Your task to perform on an android device: Open notification settings Image 0: 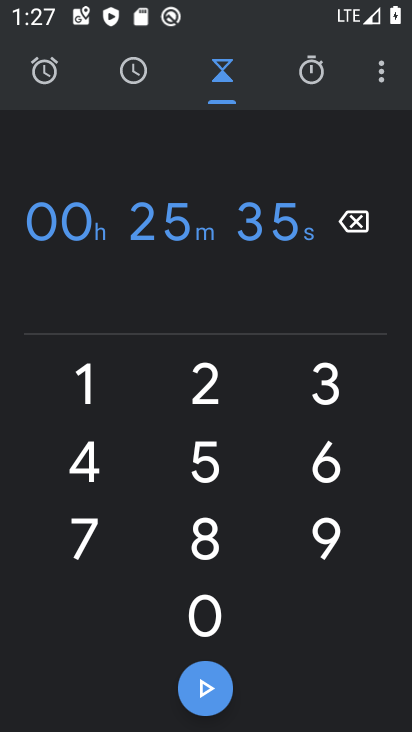
Step 0: press back button
Your task to perform on an android device: Open notification settings Image 1: 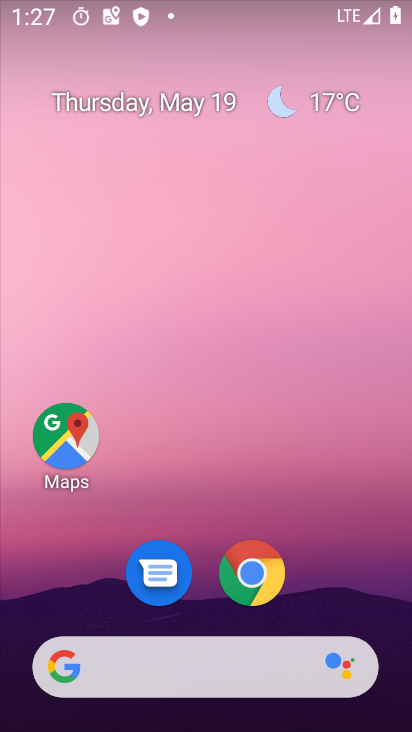
Step 1: drag from (210, 619) to (318, 134)
Your task to perform on an android device: Open notification settings Image 2: 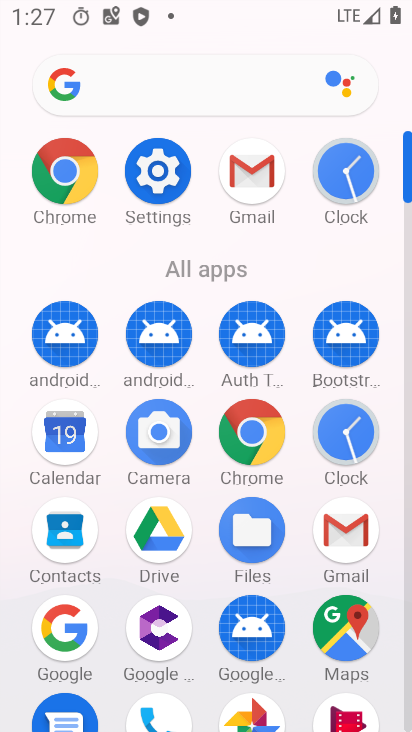
Step 2: click (159, 167)
Your task to perform on an android device: Open notification settings Image 3: 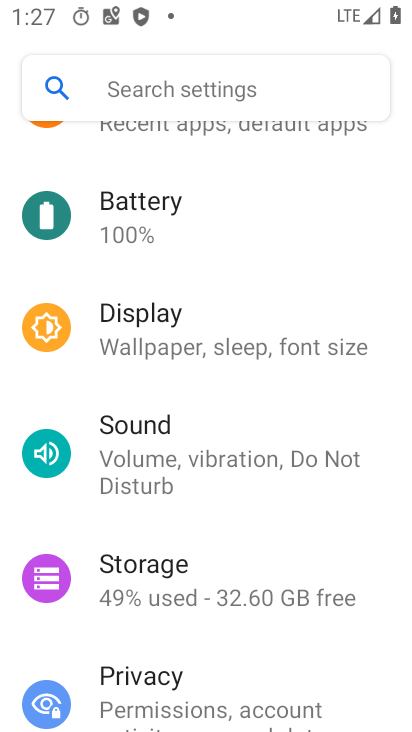
Step 3: drag from (249, 220) to (190, 687)
Your task to perform on an android device: Open notification settings Image 4: 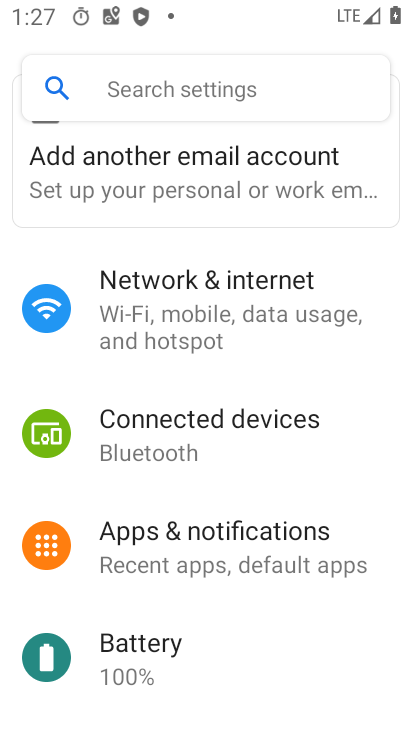
Step 4: click (190, 544)
Your task to perform on an android device: Open notification settings Image 5: 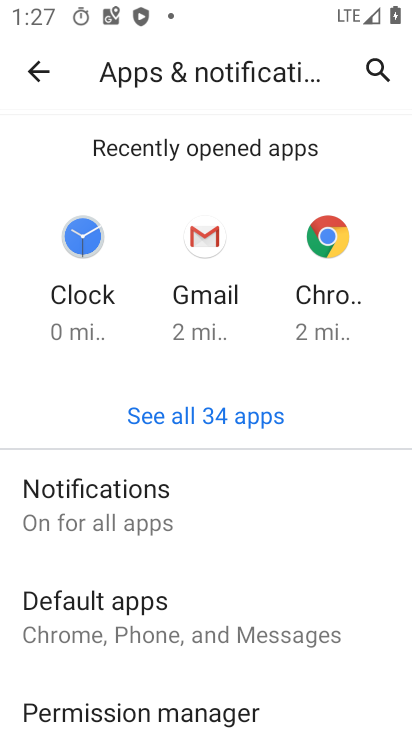
Step 5: task complete